Your task to perform on an android device: Go to battery settings Image 0: 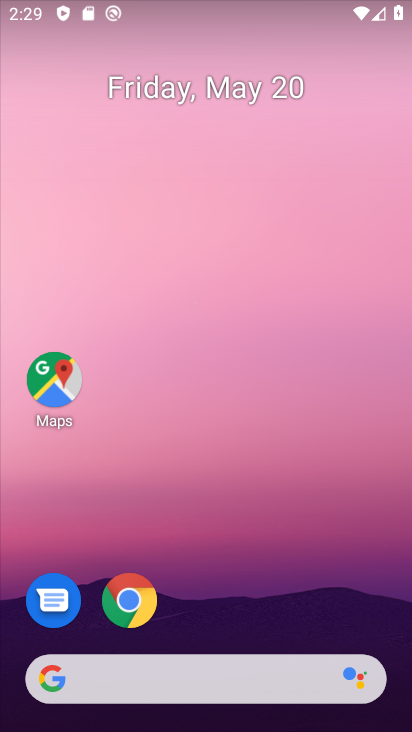
Step 0: drag from (347, 602) to (336, 231)
Your task to perform on an android device: Go to battery settings Image 1: 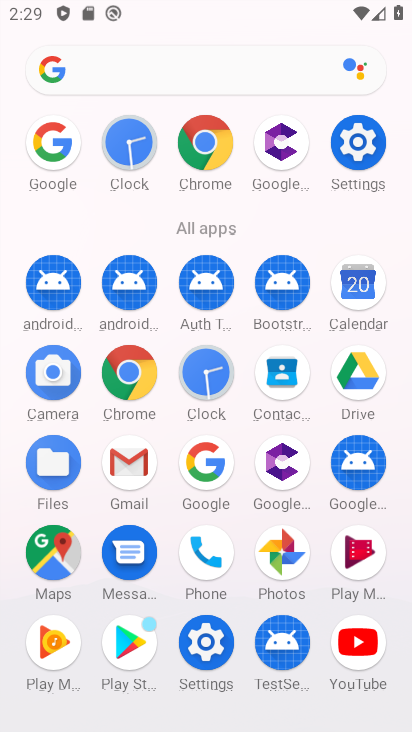
Step 1: click (359, 156)
Your task to perform on an android device: Go to battery settings Image 2: 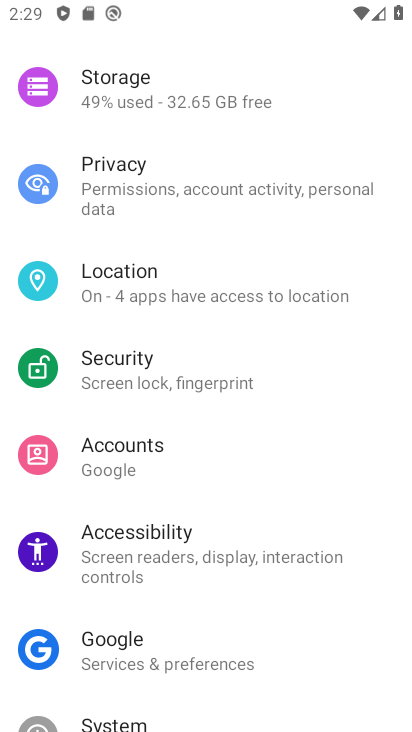
Step 2: drag from (319, 611) to (327, 485)
Your task to perform on an android device: Go to battery settings Image 3: 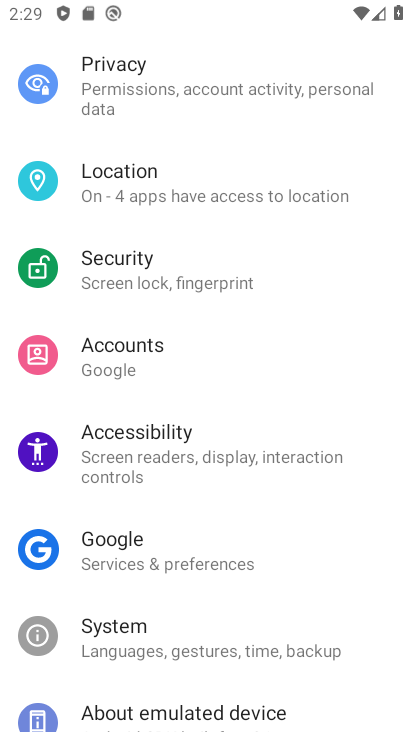
Step 3: drag from (331, 602) to (331, 479)
Your task to perform on an android device: Go to battery settings Image 4: 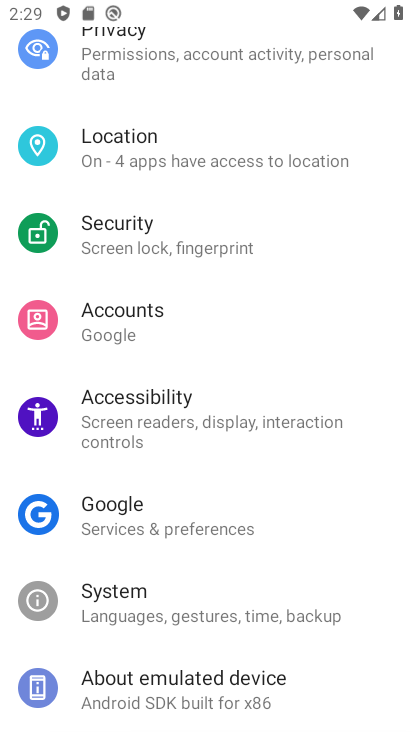
Step 4: drag from (334, 655) to (333, 549)
Your task to perform on an android device: Go to battery settings Image 5: 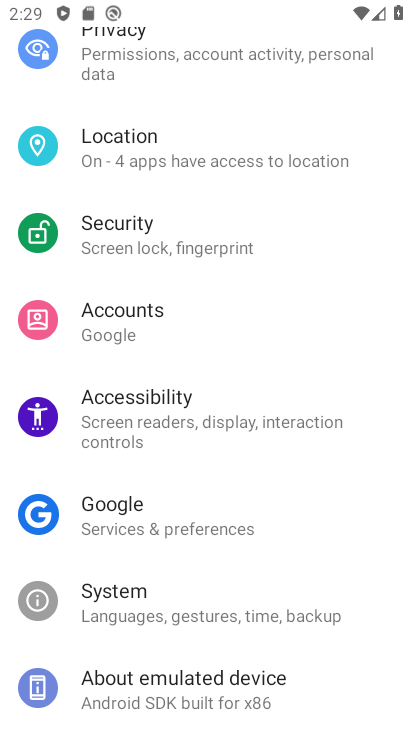
Step 5: drag from (347, 340) to (336, 496)
Your task to perform on an android device: Go to battery settings Image 6: 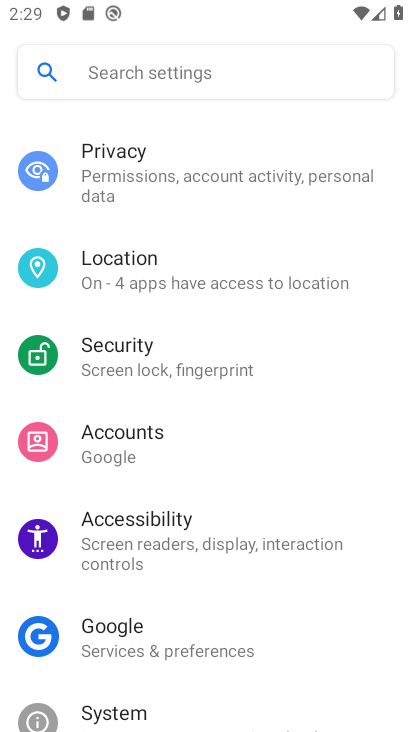
Step 6: drag from (344, 236) to (345, 393)
Your task to perform on an android device: Go to battery settings Image 7: 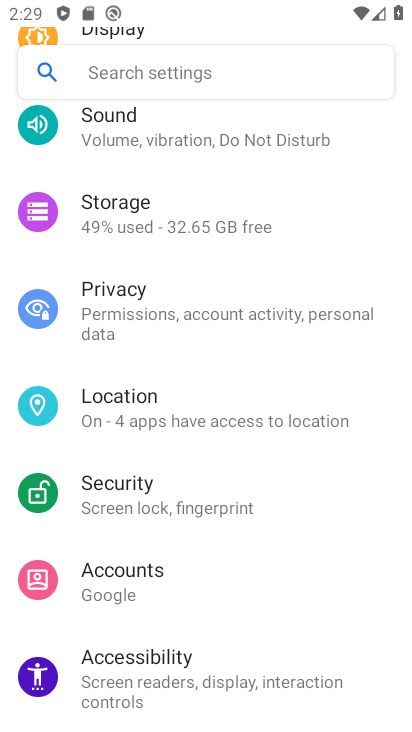
Step 7: drag from (347, 243) to (333, 446)
Your task to perform on an android device: Go to battery settings Image 8: 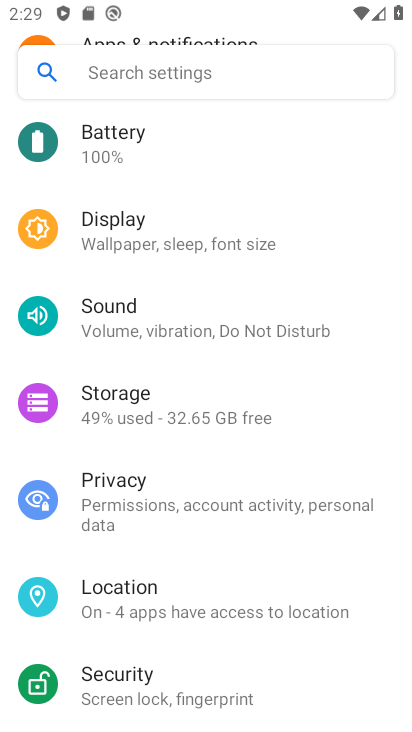
Step 8: drag from (315, 262) to (305, 410)
Your task to perform on an android device: Go to battery settings Image 9: 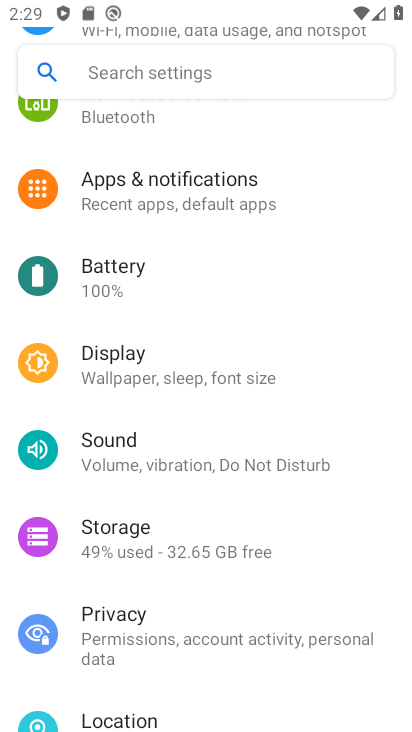
Step 9: drag from (321, 284) to (318, 401)
Your task to perform on an android device: Go to battery settings Image 10: 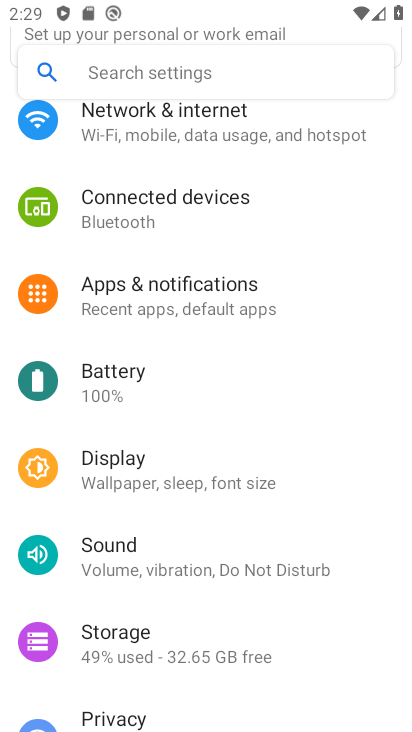
Step 10: drag from (313, 204) to (304, 373)
Your task to perform on an android device: Go to battery settings Image 11: 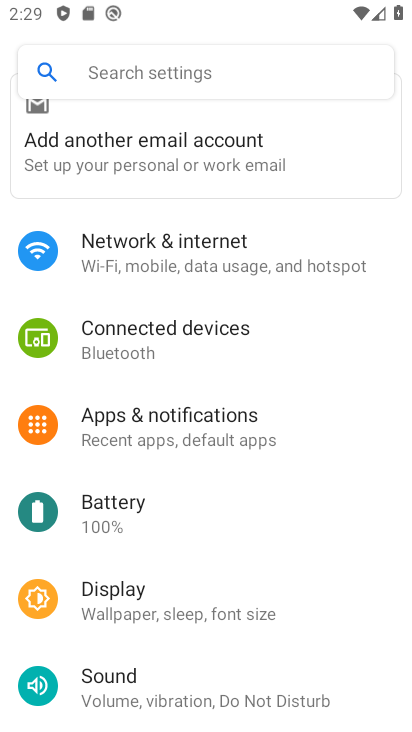
Step 11: drag from (316, 198) to (317, 355)
Your task to perform on an android device: Go to battery settings Image 12: 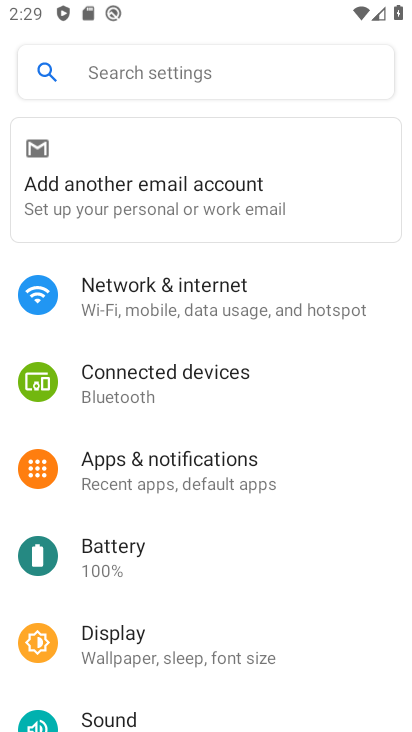
Step 12: drag from (298, 537) to (293, 401)
Your task to perform on an android device: Go to battery settings Image 13: 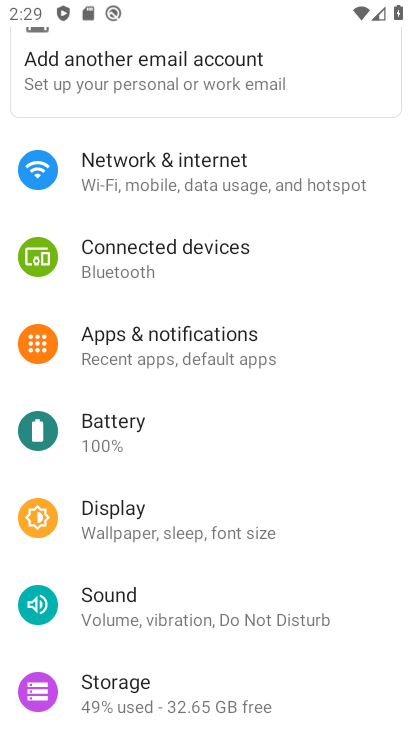
Step 13: click (186, 443)
Your task to perform on an android device: Go to battery settings Image 14: 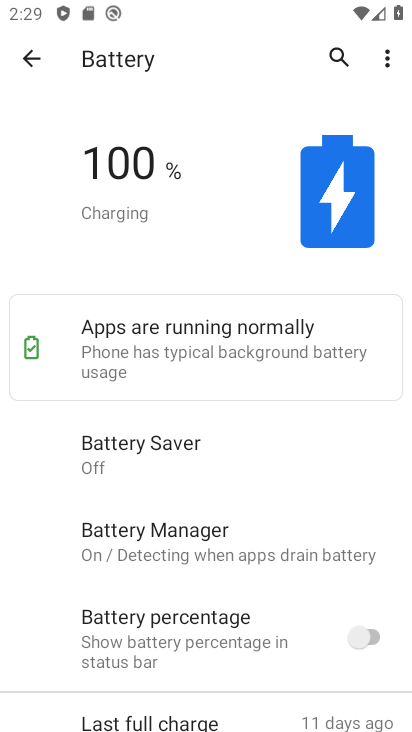
Step 14: task complete